Your task to perform on an android device: toggle notification dots Image 0: 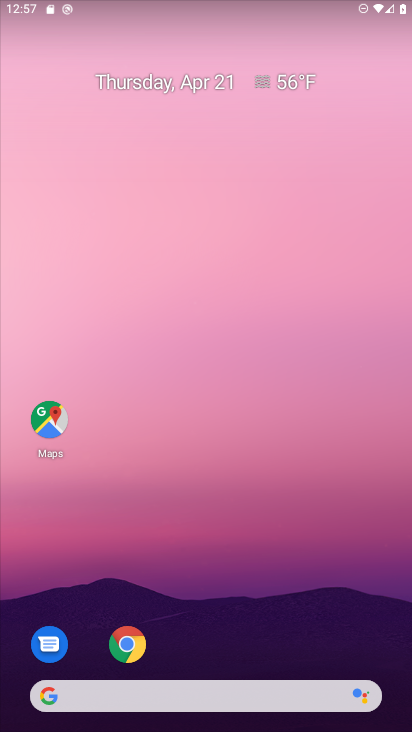
Step 0: drag from (168, 641) to (200, 185)
Your task to perform on an android device: toggle notification dots Image 1: 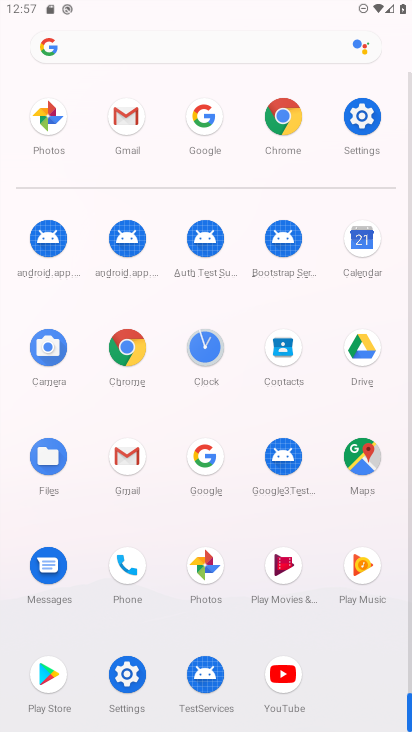
Step 1: click (359, 113)
Your task to perform on an android device: toggle notification dots Image 2: 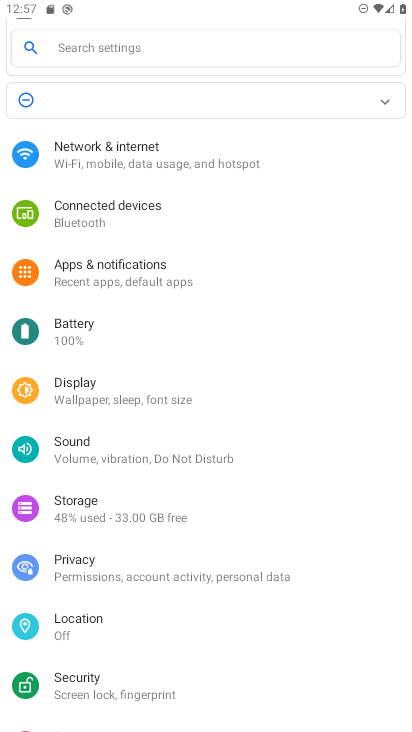
Step 2: click (125, 261)
Your task to perform on an android device: toggle notification dots Image 3: 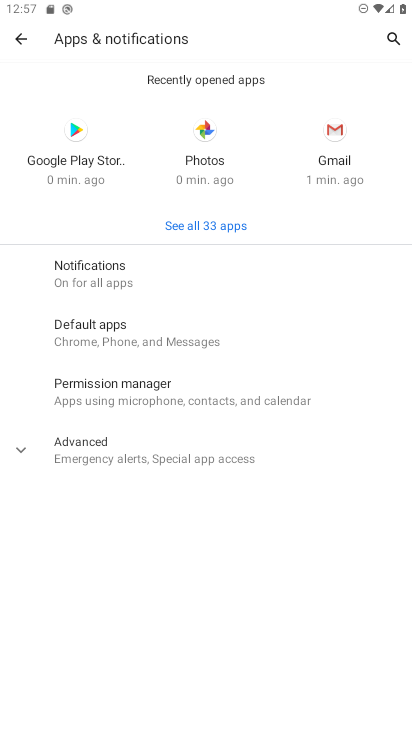
Step 3: click (112, 277)
Your task to perform on an android device: toggle notification dots Image 4: 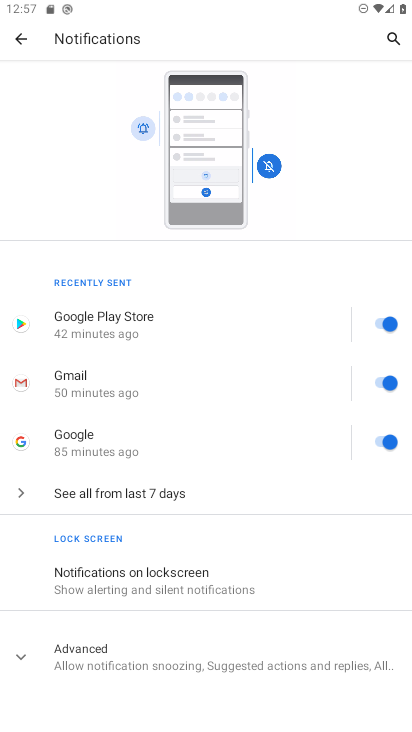
Step 4: click (22, 655)
Your task to perform on an android device: toggle notification dots Image 5: 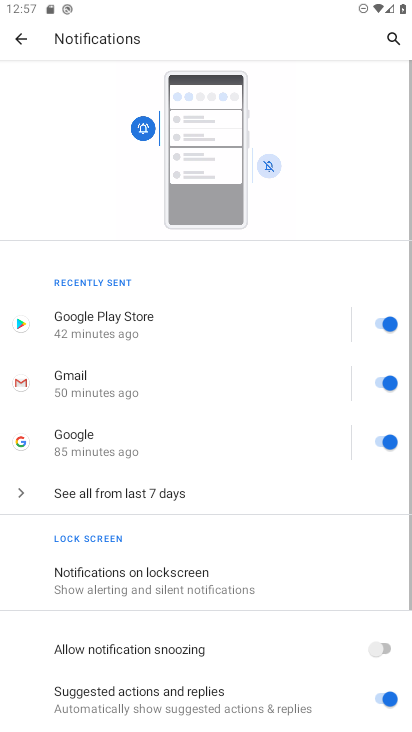
Step 5: drag from (96, 656) to (154, 255)
Your task to perform on an android device: toggle notification dots Image 6: 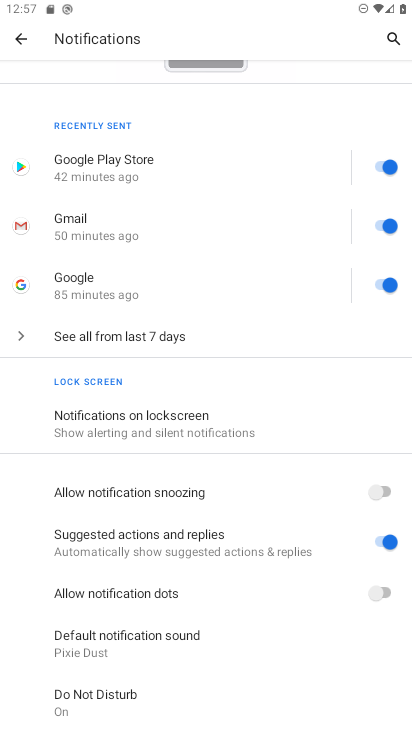
Step 6: click (378, 588)
Your task to perform on an android device: toggle notification dots Image 7: 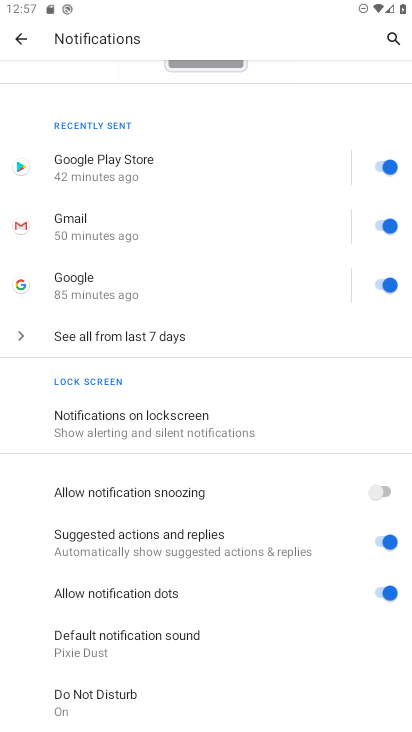
Step 7: task complete